Your task to perform on an android device: When is my next meeting? Image 0: 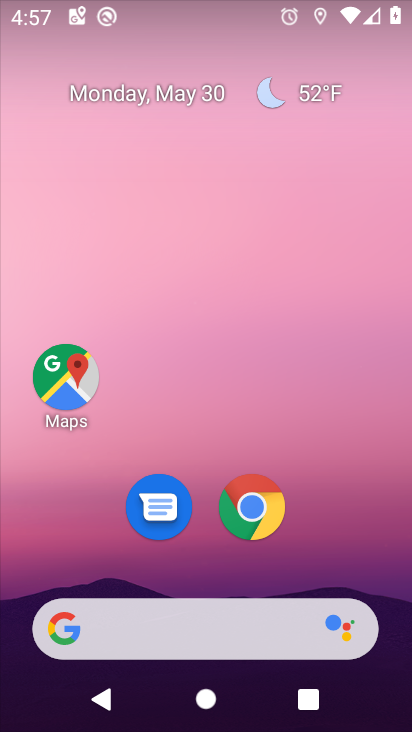
Step 0: press home button
Your task to perform on an android device: When is my next meeting? Image 1: 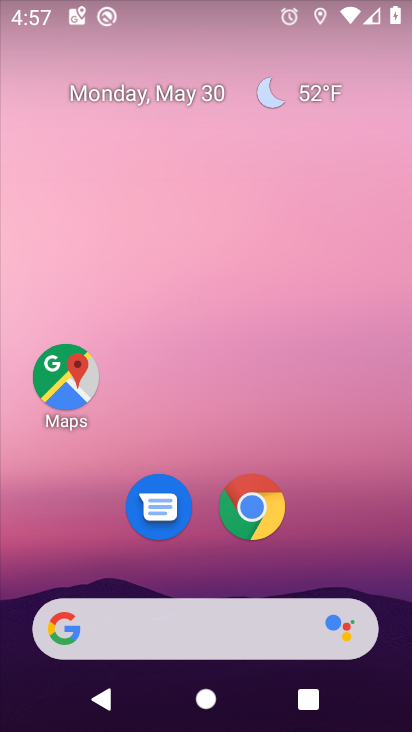
Step 1: drag from (337, 513) to (291, 99)
Your task to perform on an android device: When is my next meeting? Image 2: 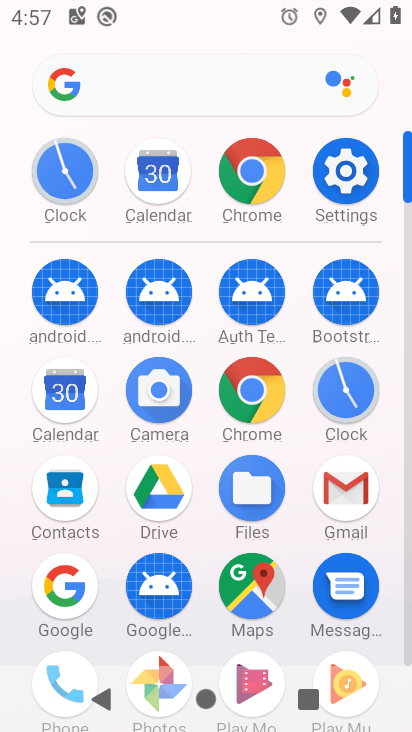
Step 2: click (48, 379)
Your task to perform on an android device: When is my next meeting? Image 3: 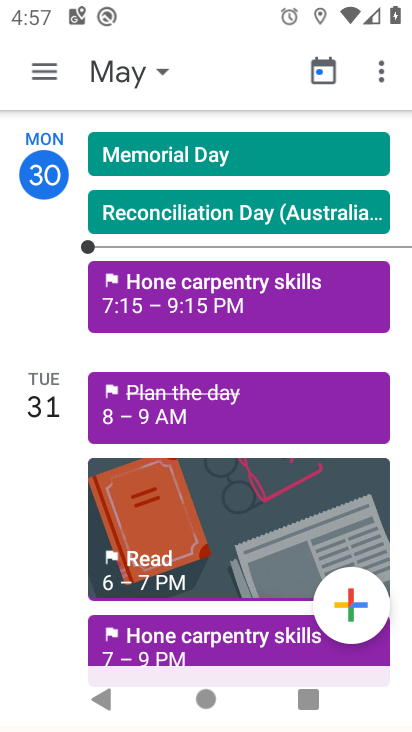
Step 3: click (152, 74)
Your task to perform on an android device: When is my next meeting? Image 4: 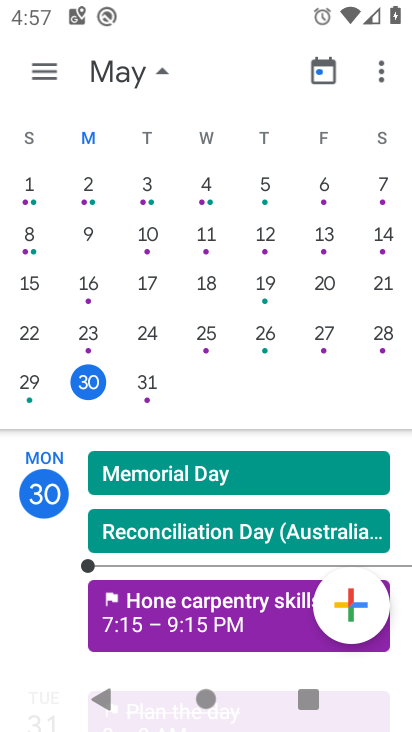
Step 4: click (142, 77)
Your task to perform on an android device: When is my next meeting? Image 5: 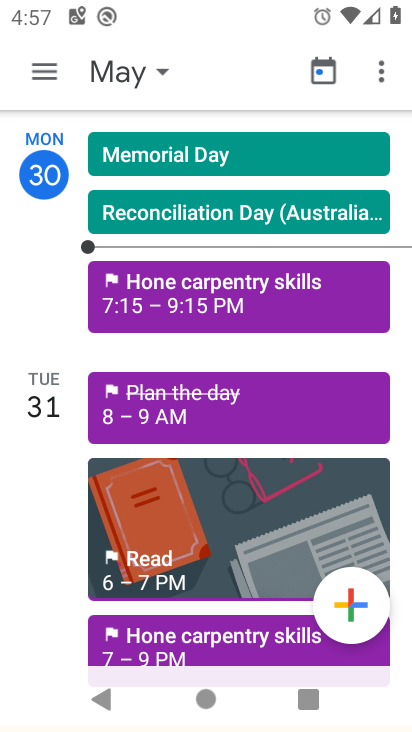
Step 5: task complete